Your task to perform on an android device: Do I have any events tomorrow? Image 0: 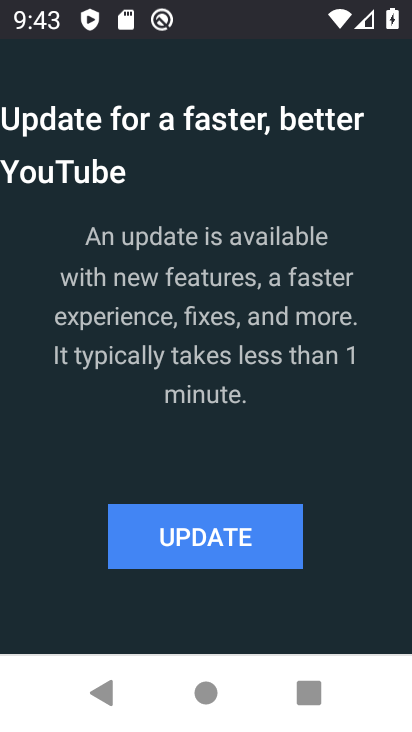
Step 0: press home button
Your task to perform on an android device: Do I have any events tomorrow? Image 1: 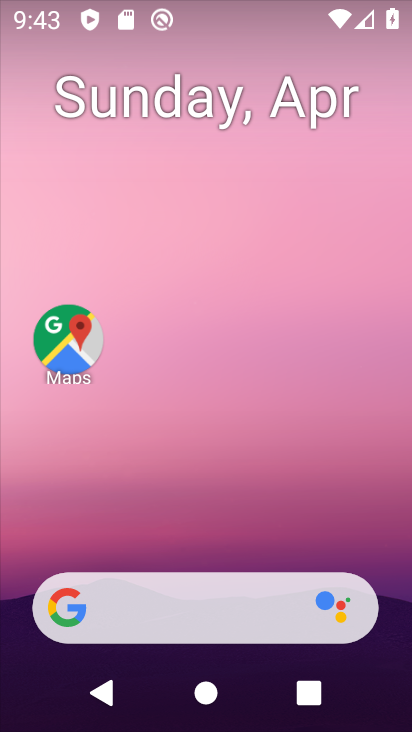
Step 1: drag from (221, 724) to (225, 135)
Your task to perform on an android device: Do I have any events tomorrow? Image 2: 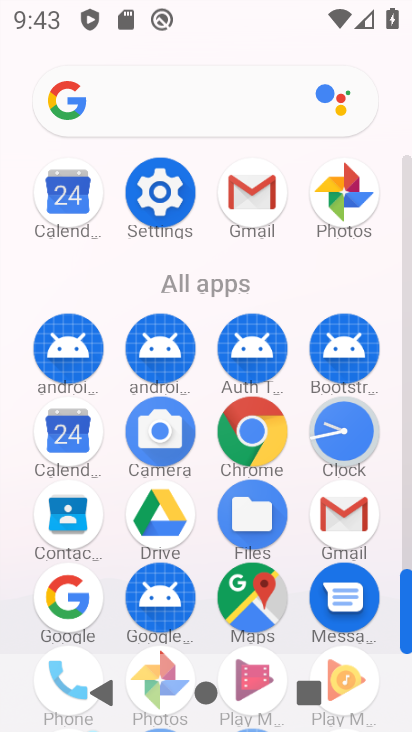
Step 2: click (59, 443)
Your task to perform on an android device: Do I have any events tomorrow? Image 3: 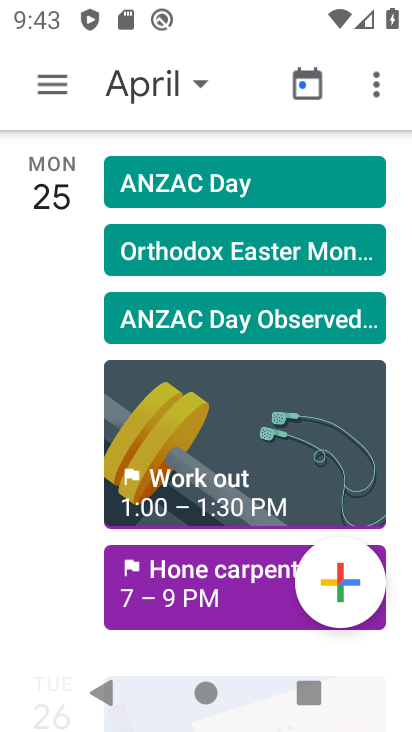
Step 3: click (45, 82)
Your task to perform on an android device: Do I have any events tomorrow? Image 4: 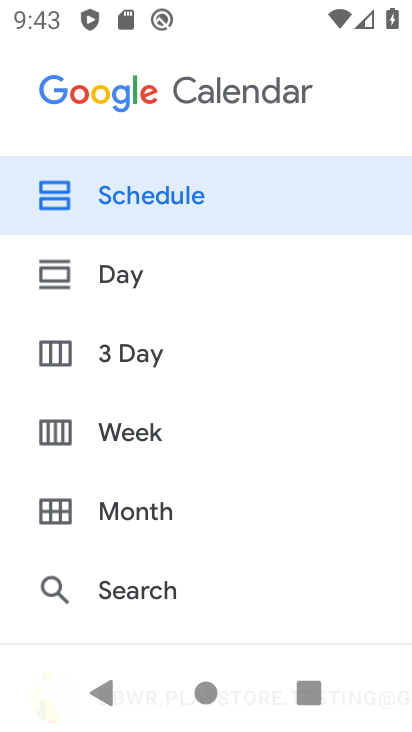
Step 4: drag from (127, 610) to (143, 131)
Your task to perform on an android device: Do I have any events tomorrow? Image 5: 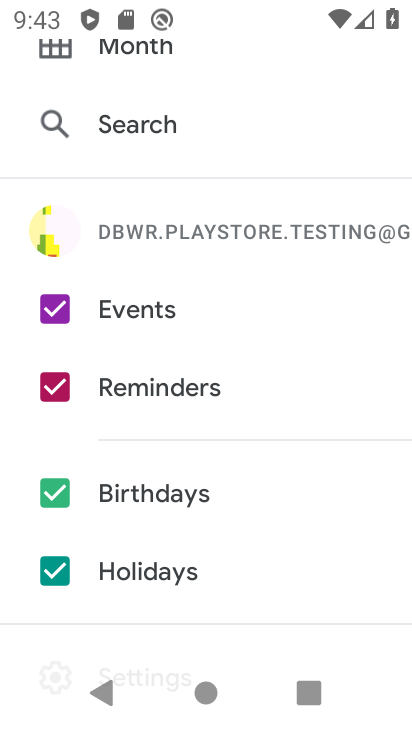
Step 5: click (61, 571)
Your task to perform on an android device: Do I have any events tomorrow? Image 6: 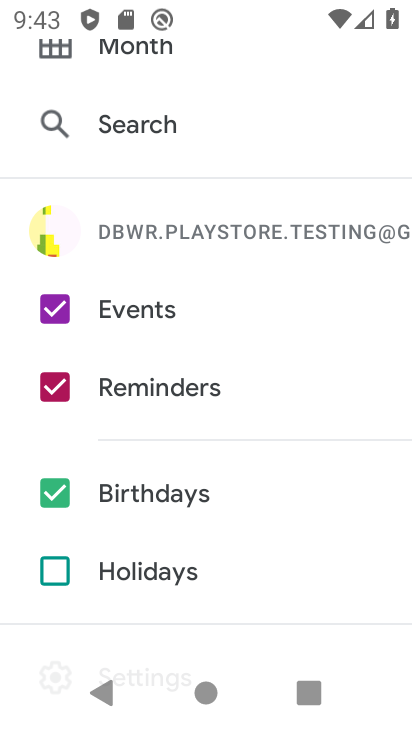
Step 6: click (54, 491)
Your task to perform on an android device: Do I have any events tomorrow? Image 7: 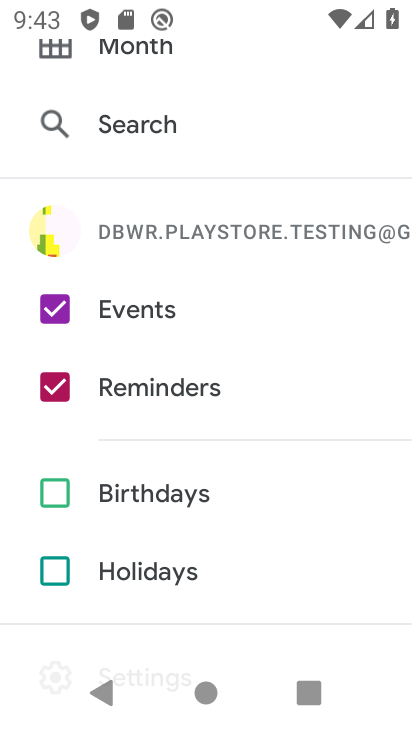
Step 7: click (49, 382)
Your task to perform on an android device: Do I have any events tomorrow? Image 8: 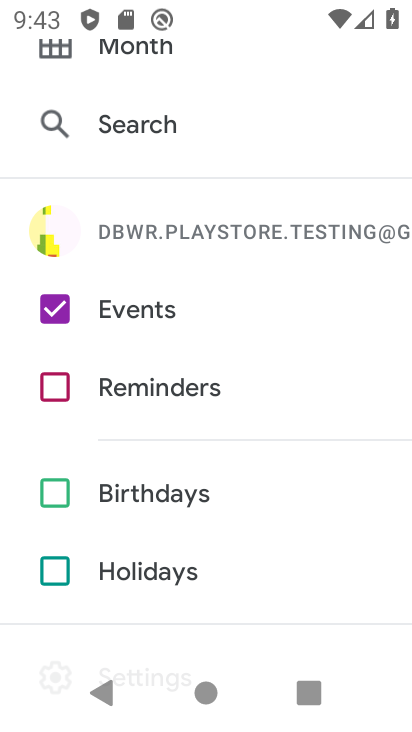
Step 8: task complete